Your task to perform on an android device: Open internet settings Image 0: 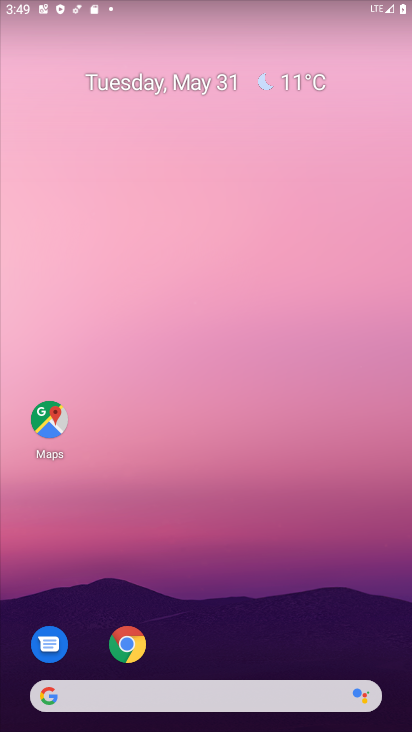
Step 0: drag from (240, 660) to (274, 33)
Your task to perform on an android device: Open internet settings Image 1: 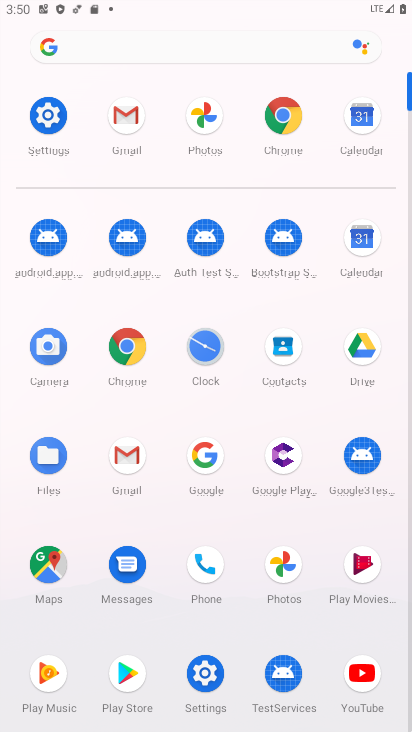
Step 1: click (51, 115)
Your task to perform on an android device: Open internet settings Image 2: 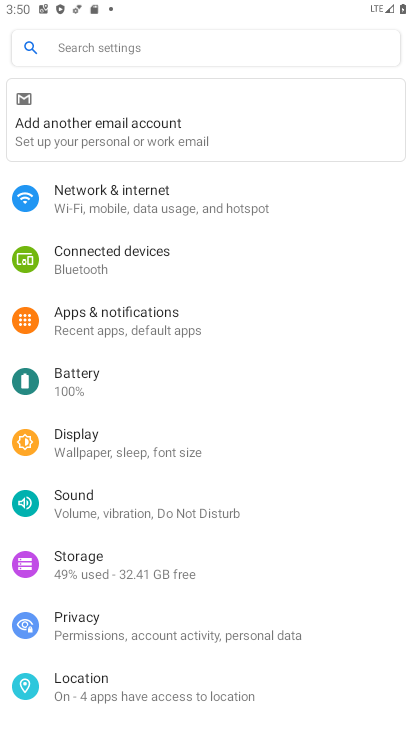
Step 2: click (203, 197)
Your task to perform on an android device: Open internet settings Image 3: 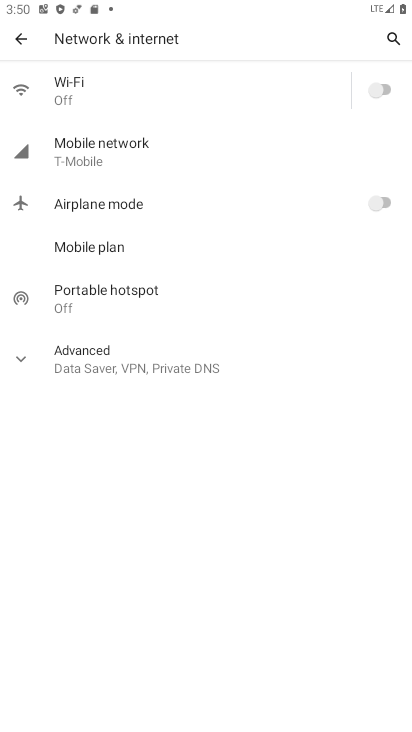
Step 3: task complete